Your task to perform on an android device: Clear the cart on ebay.com. Search for "razer deathadder" on ebay.com, select the first entry, add it to the cart, then select checkout. Image 0: 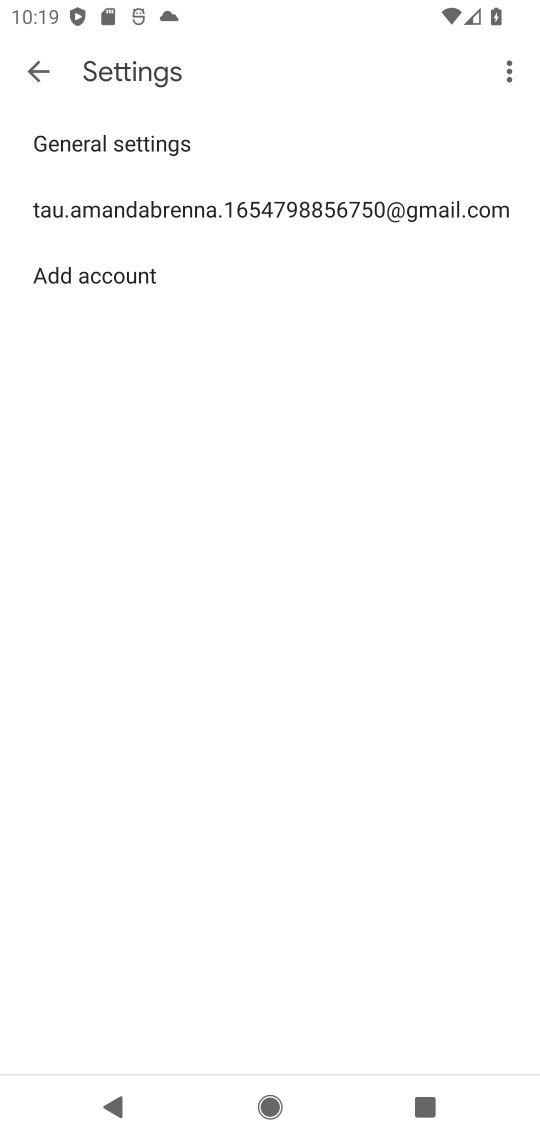
Step 0: press home button
Your task to perform on an android device: Clear the cart on ebay.com. Search for "razer deathadder" on ebay.com, select the first entry, add it to the cart, then select checkout. Image 1: 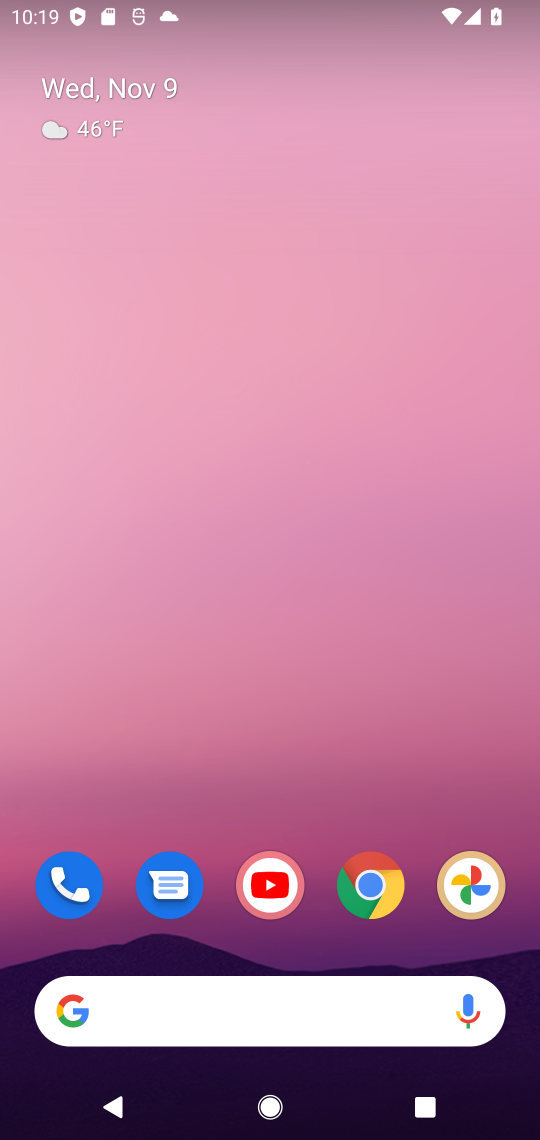
Step 1: click (372, 896)
Your task to perform on an android device: Clear the cart on ebay.com. Search for "razer deathadder" on ebay.com, select the first entry, add it to the cart, then select checkout. Image 2: 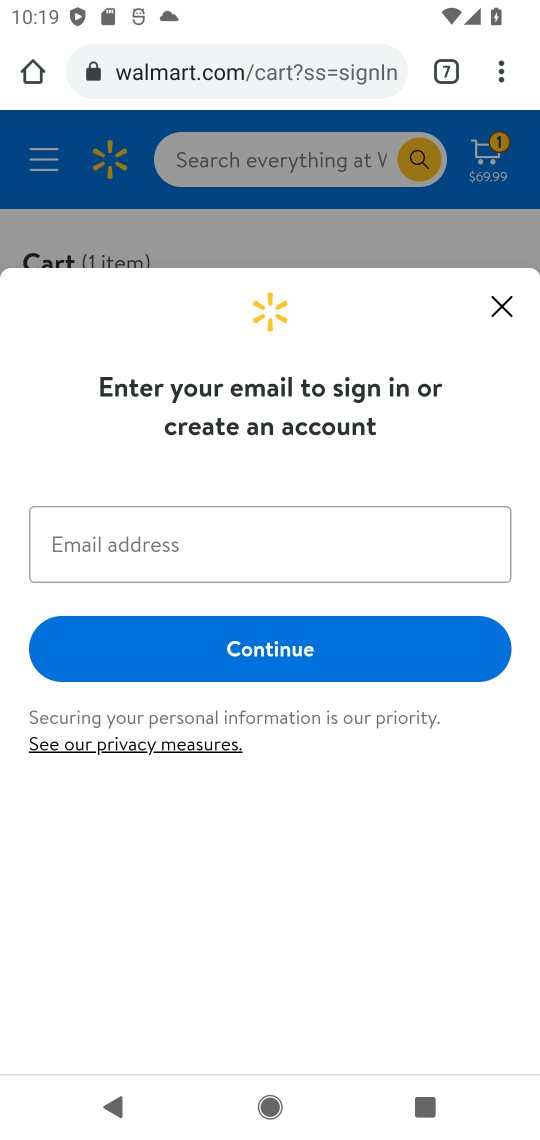
Step 2: click (439, 72)
Your task to perform on an android device: Clear the cart on ebay.com. Search for "razer deathadder" on ebay.com, select the first entry, add it to the cart, then select checkout. Image 3: 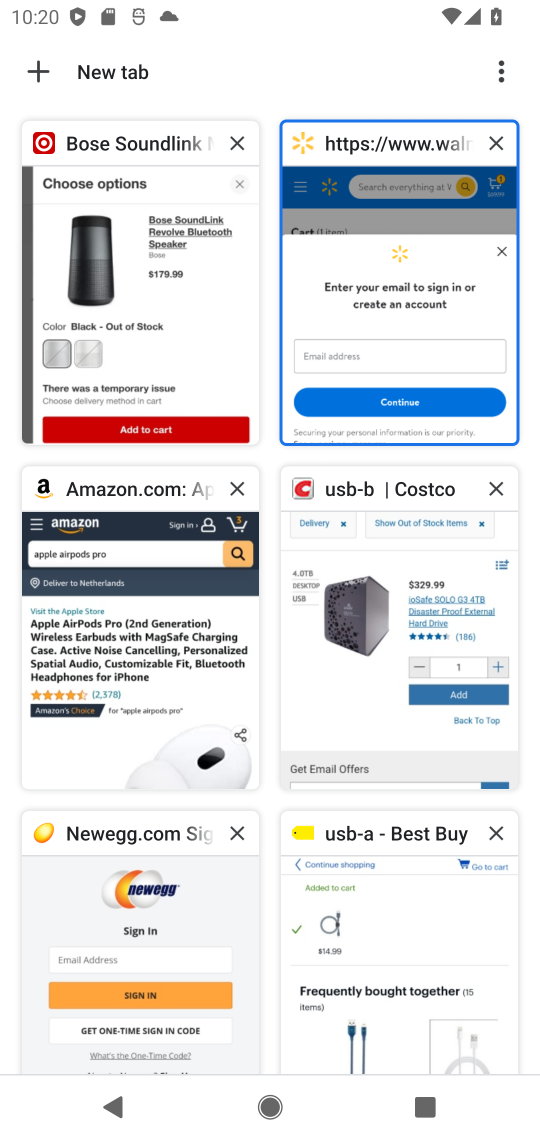
Step 3: drag from (284, 884) to (345, 357)
Your task to perform on an android device: Clear the cart on ebay.com. Search for "razer deathadder" on ebay.com, select the first entry, add it to the cart, then select checkout. Image 4: 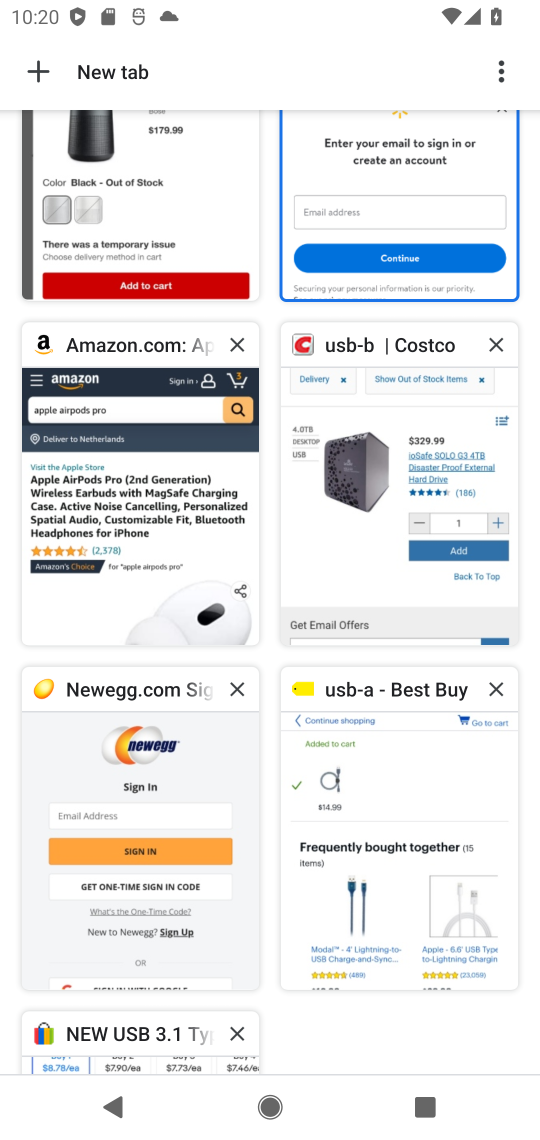
Step 4: click (37, 65)
Your task to perform on an android device: Clear the cart on ebay.com. Search for "razer deathadder" on ebay.com, select the first entry, add it to the cart, then select checkout. Image 5: 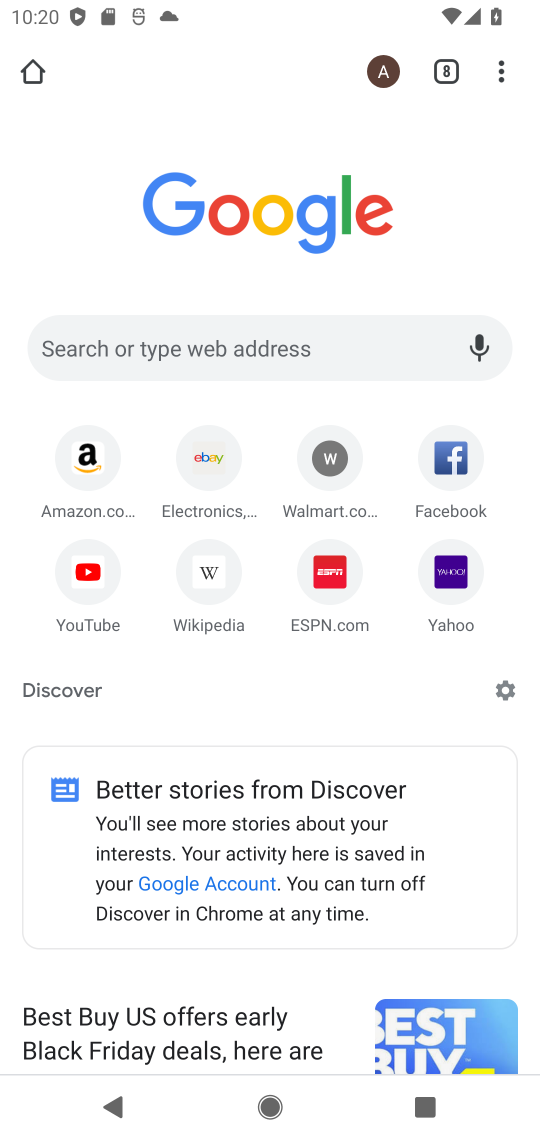
Step 5: click (209, 471)
Your task to perform on an android device: Clear the cart on ebay.com. Search for "razer deathadder" on ebay.com, select the first entry, add it to the cart, then select checkout. Image 6: 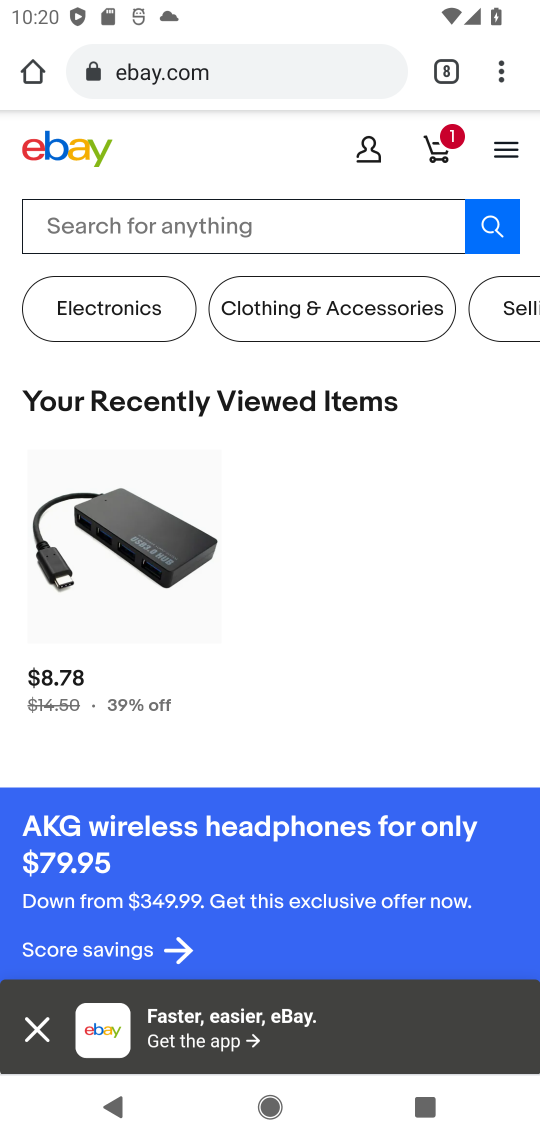
Step 6: click (166, 241)
Your task to perform on an android device: Clear the cart on ebay.com. Search for "razer deathadder" on ebay.com, select the first entry, add it to the cart, then select checkout. Image 7: 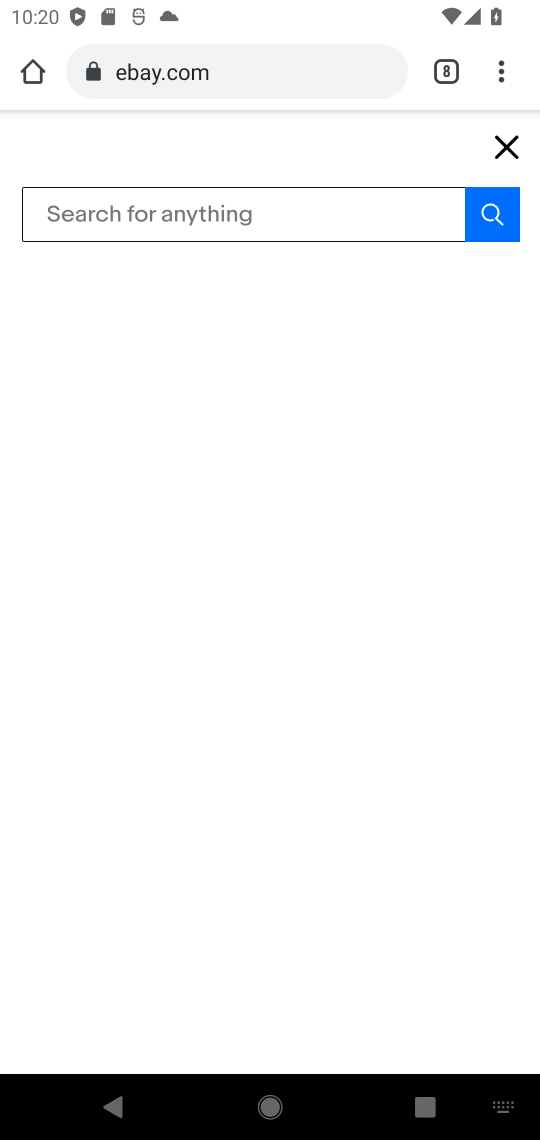
Step 7: type "razer deathadder"
Your task to perform on an android device: Clear the cart on ebay.com. Search for "razer deathadder" on ebay.com, select the first entry, add it to the cart, then select checkout. Image 8: 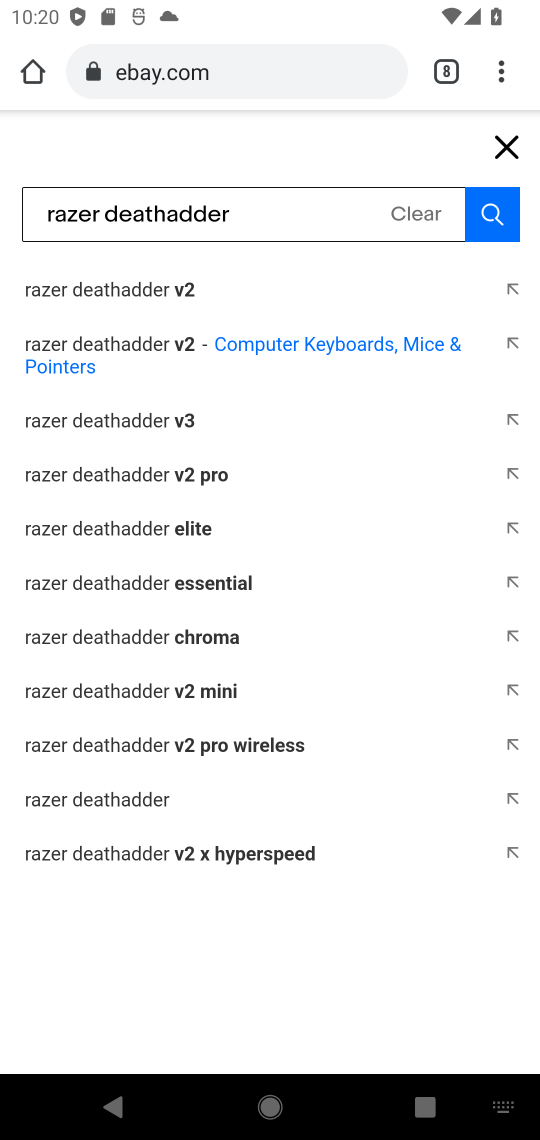
Step 8: click (158, 348)
Your task to perform on an android device: Clear the cart on ebay.com. Search for "razer deathadder" on ebay.com, select the first entry, add it to the cart, then select checkout. Image 9: 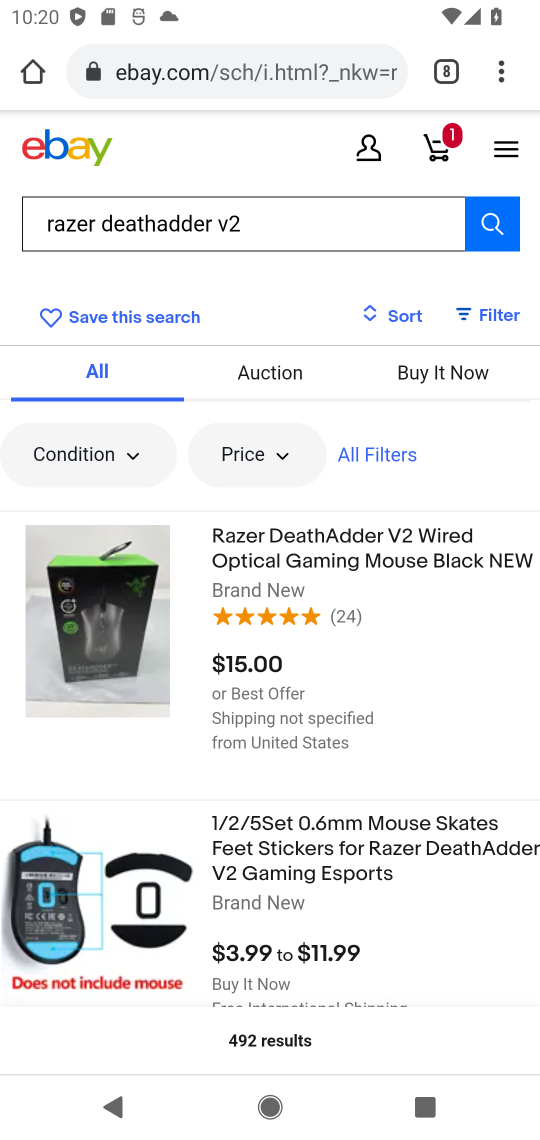
Step 9: click (335, 550)
Your task to perform on an android device: Clear the cart on ebay.com. Search for "razer deathadder" on ebay.com, select the first entry, add it to the cart, then select checkout. Image 10: 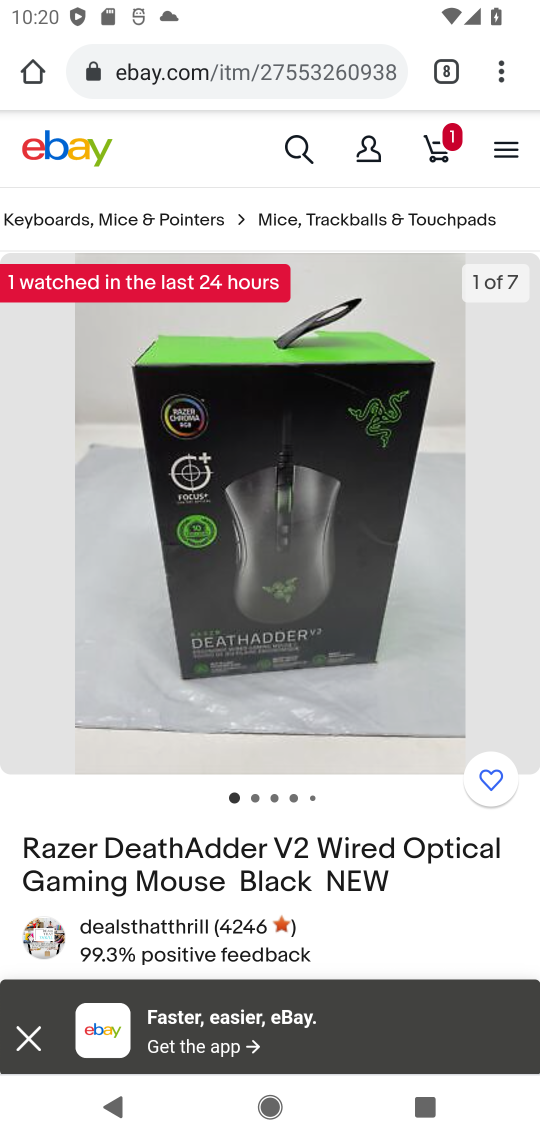
Step 10: drag from (389, 920) to (443, 308)
Your task to perform on an android device: Clear the cart on ebay.com. Search for "razer deathadder" on ebay.com, select the first entry, add it to the cart, then select checkout. Image 11: 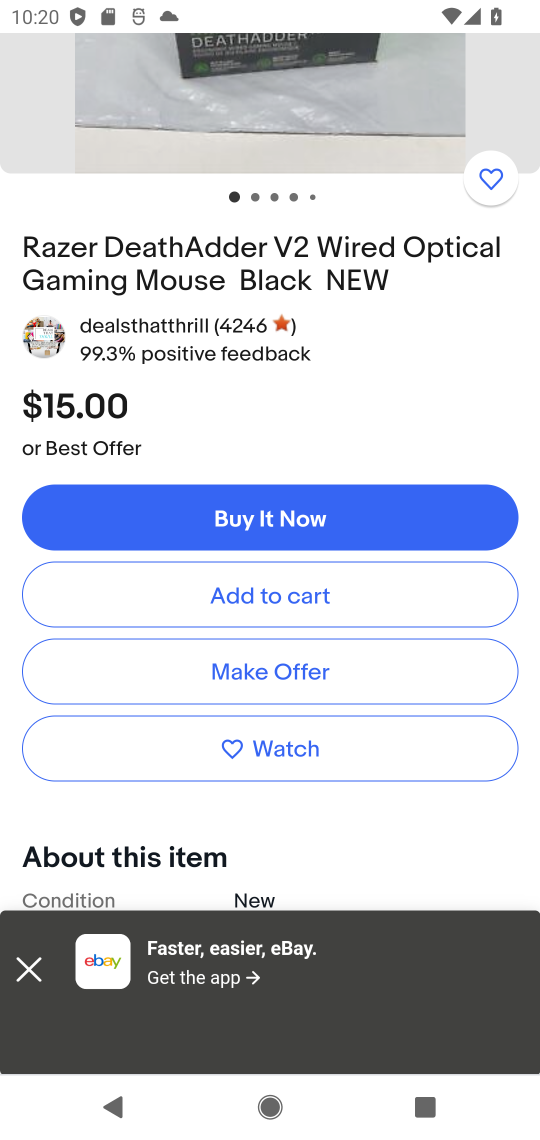
Step 11: click (239, 592)
Your task to perform on an android device: Clear the cart on ebay.com. Search for "razer deathadder" on ebay.com, select the first entry, add it to the cart, then select checkout. Image 12: 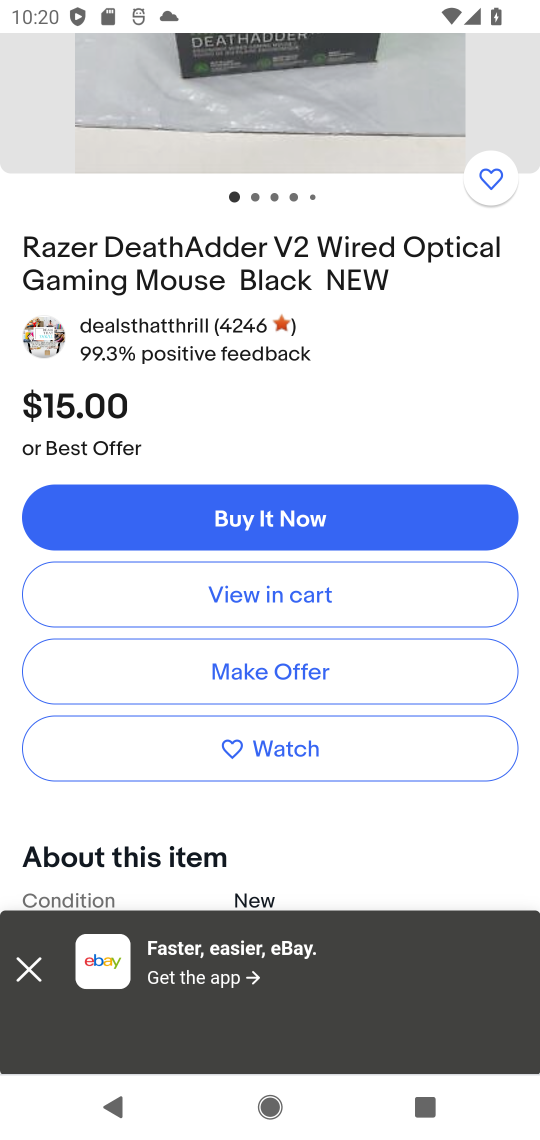
Step 12: task complete